Your task to perform on an android device: Find coffee shops on Maps Image 0: 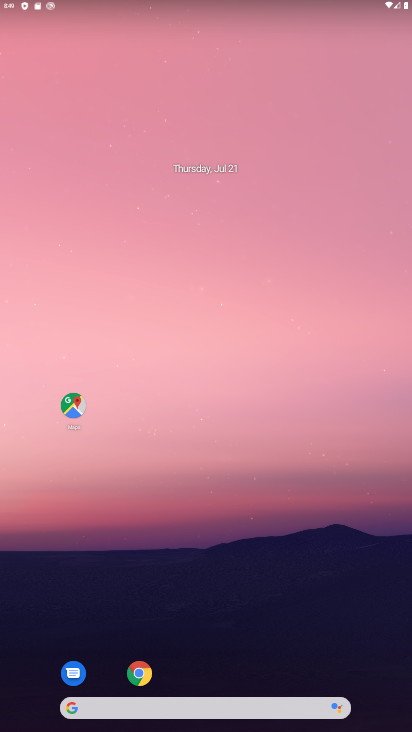
Step 0: click (80, 408)
Your task to perform on an android device: Find coffee shops on Maps Image 1: 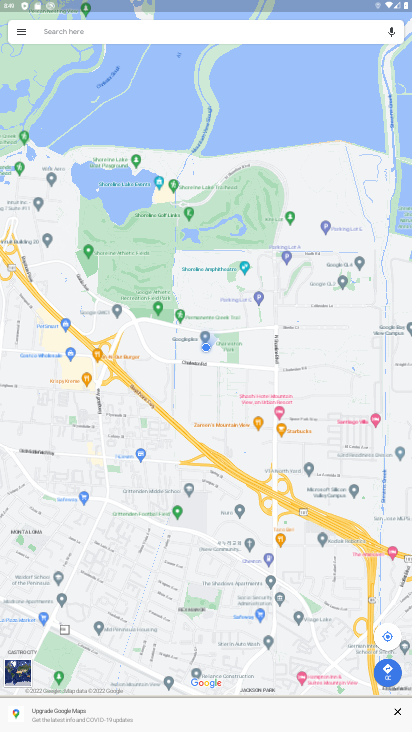
Step 1: click (228, 37)
Your task to perform on an android device: Find coffee shops on Maps Image 2: 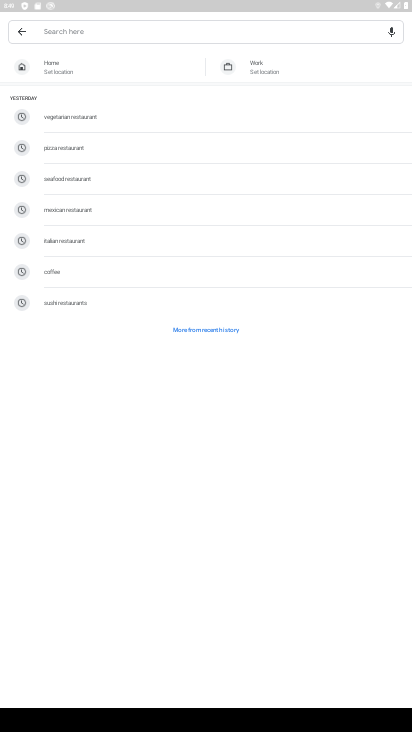
Step 2: click (119, 269)
Your task to perform on an android device: Find coffee shops on Maps Image 3: 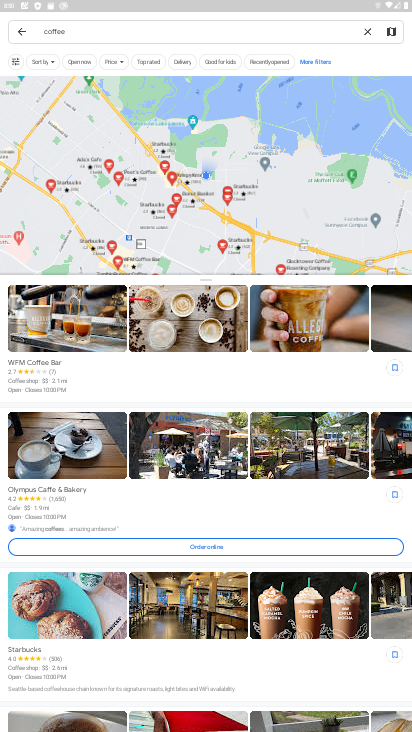
Step 3: task complete